Your task to perform on an android device: set the timer Image 0: 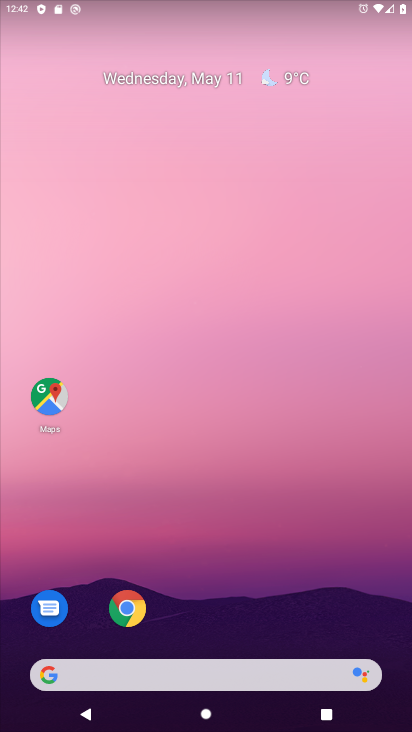
Step 0: click (226, 289)
Your task to perform on an android device: set the timer Image 1: 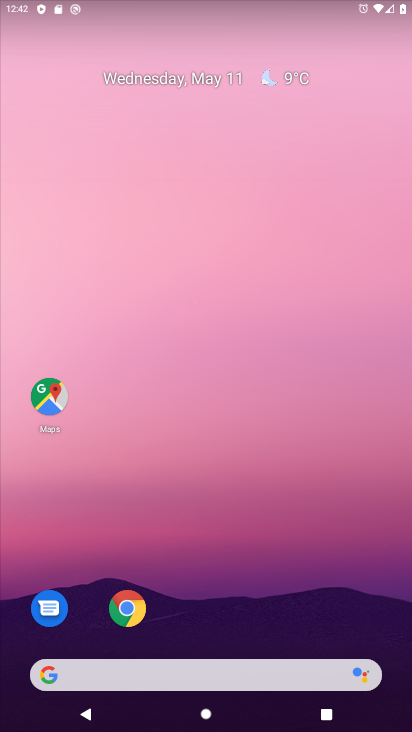
Step 1: drag from (219, 636) to (177, 305)
Your task to perform on an android device: set the timer Image 2: 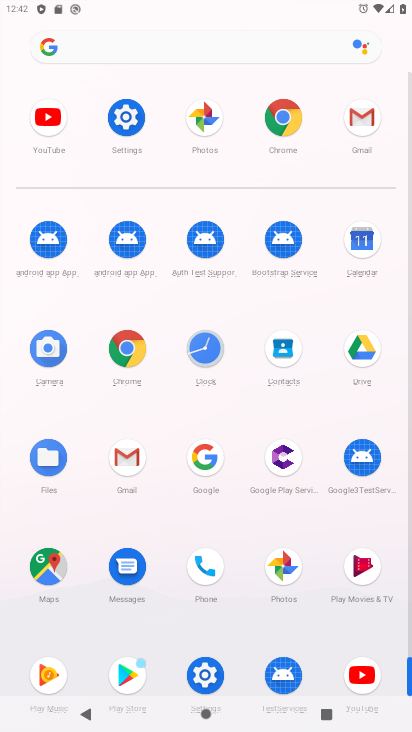
Step 2: click (218, 370)
Your task to perform on an android device: set the timer Image 3: 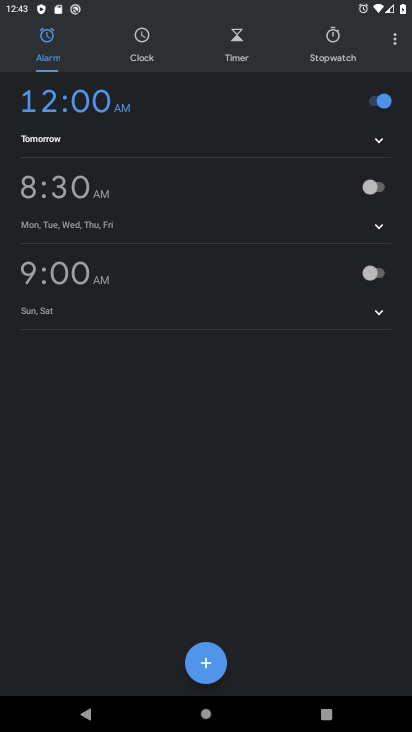
Step 3: click (241, 39)
Your task to perform on an android device: set the timer Image 4: 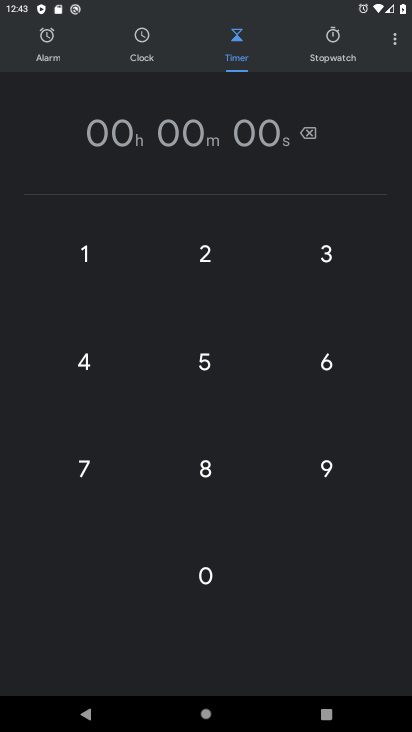
Step 4: click (213, 257)
Your task to perform on an android device: set the timer Image 5: 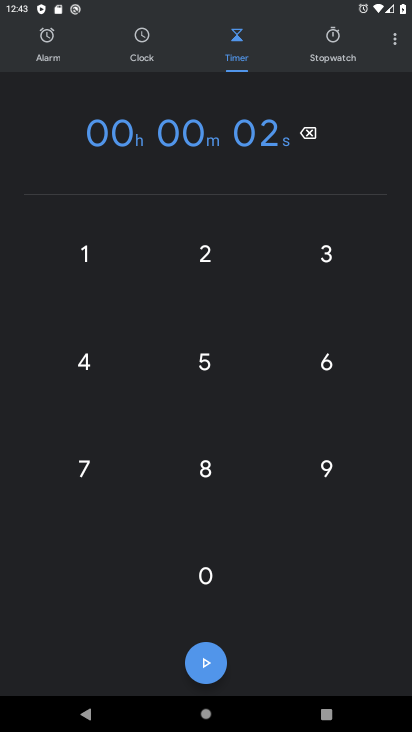
Step 5: click (207, 657)
Your task to perform on an android device: set the timer Image 6: 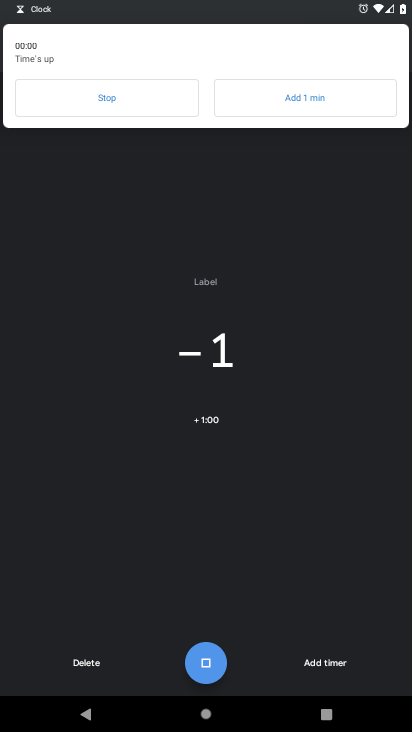
Step 6: task complete